Your task to perform on an android device: open app "Microsoft Excel" (install if not already installed) and enter user name: "kidnappers@icloud.com" and password: "Bessemerizes" Image 0: 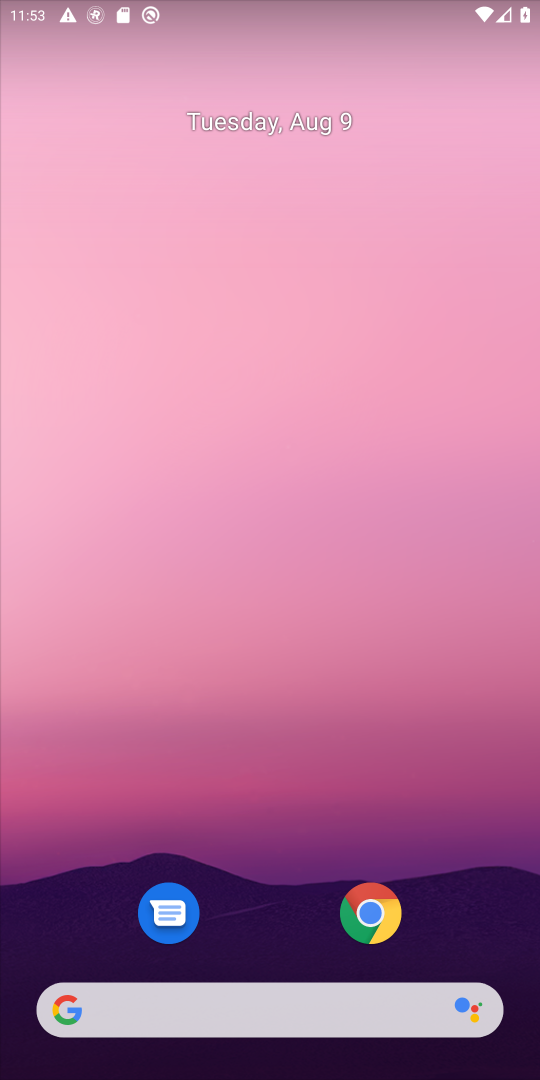
Step 0: drag from (291, 800) to (394, 108)
Your task to perform on an android device: open app "Microsoft Excel" (install if not already installed) and enter user name: "kidnappers@icloud.com" and password: "Bessemerizes" Image 1: 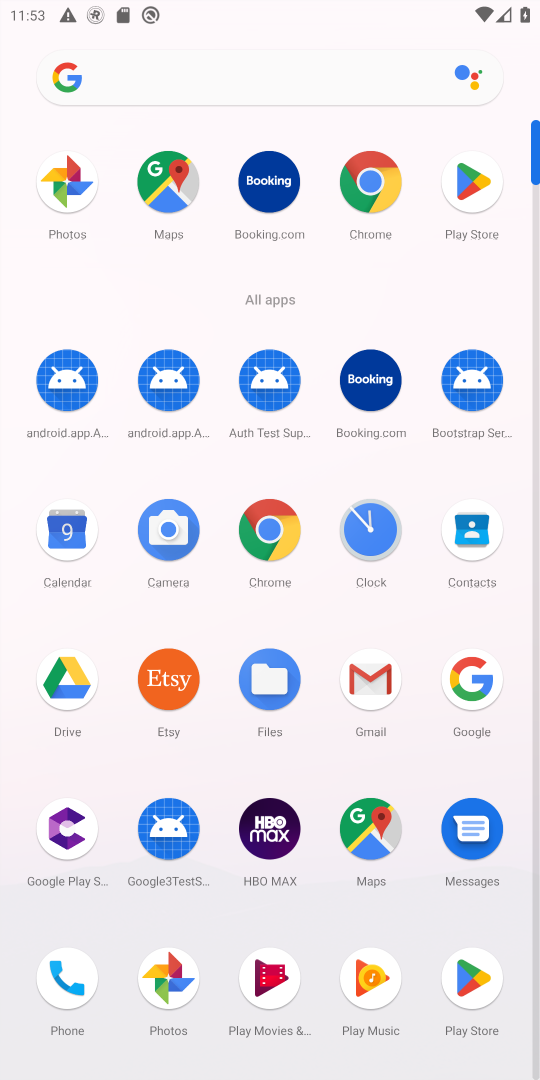
Step 1: click (483, 171)
Your task to perform on an android device: open app "Microsoft Excel" (install if not already installed) and enter user name: "kidnappers@icloud.com" and password: "Bessemerizes" Image 2: 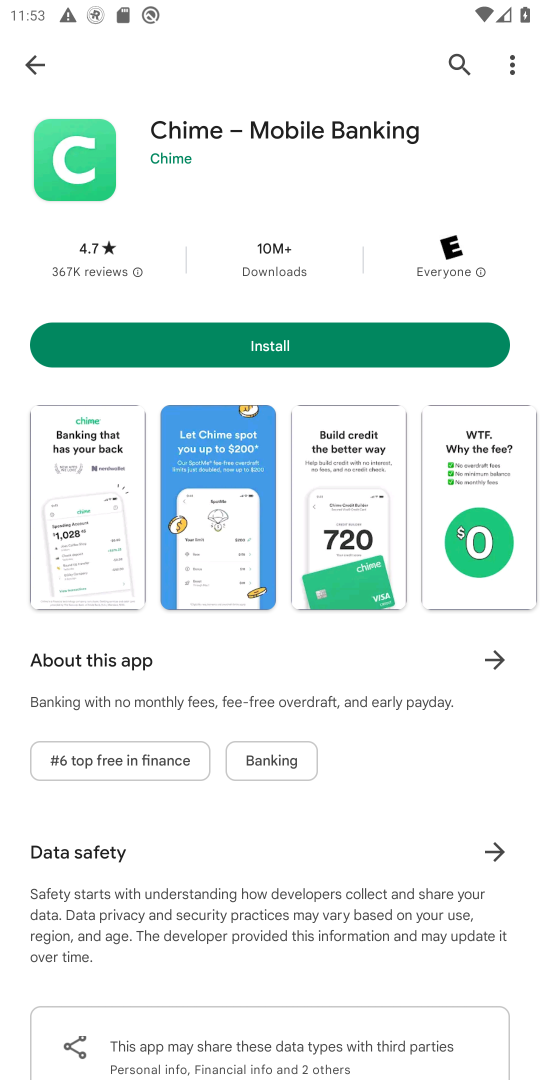
Step 2: click (48, 61)
Your task to perform on an android device: open app "Microsoft Excel" (install if not already installed) and enter user name: "kidnappers@icloud.com" and password: "Bessemerizes" Image 3: 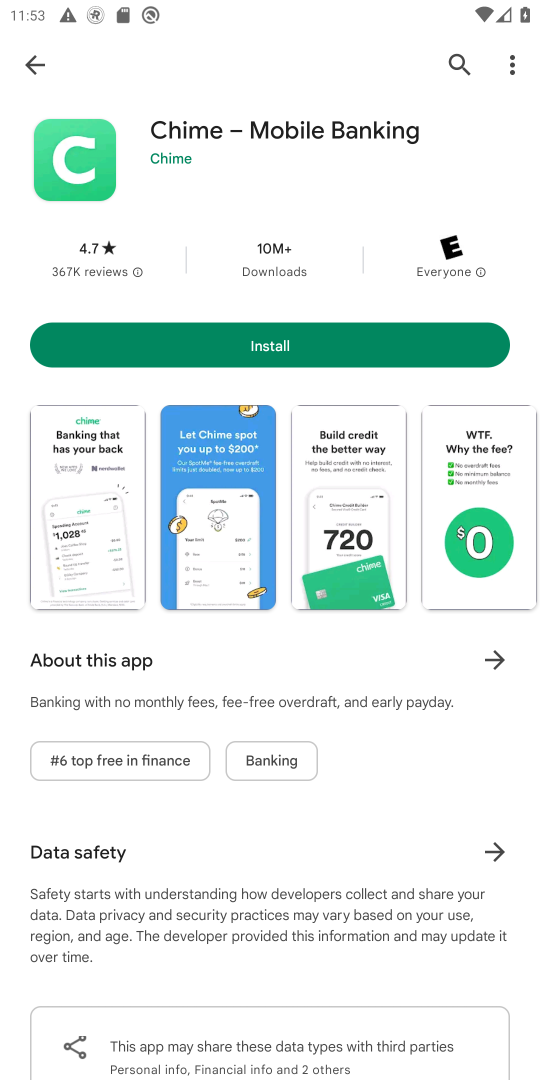
Step 3: click (43, 61)
Your task to perform on an android device: open app "Microsoft Excel" (install if not already installed) and enter user name: "kidnappers@icloud.com" and password: "Bessemerizes" Image 4: 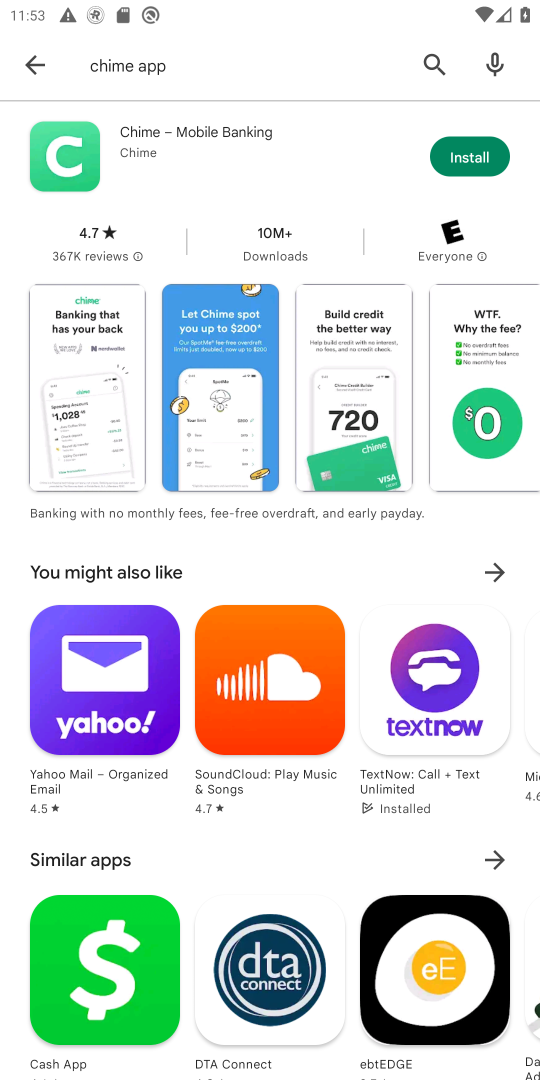
Step 4: click (43, 61)
Your task to perform on an android device: open app "Microsoft Excel" (install if not already installed) and enter user name: "kidnappers@icloud.com" and password: "Bessemerizes" Image 5: 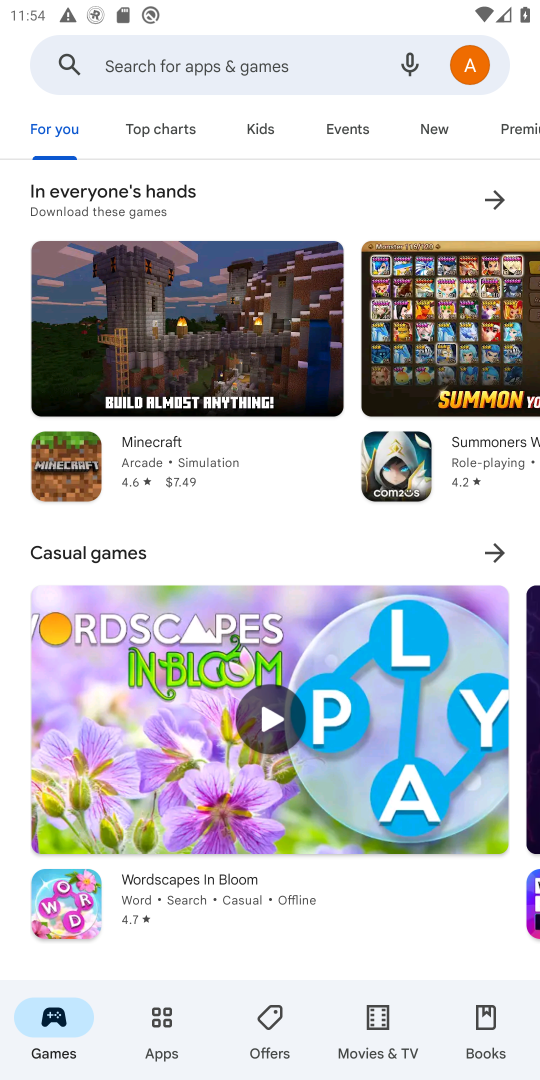
Step 5: click (290, 57)
Your task to perform on an android device: open app "Microsoft Excel" (install if not already installed) and enter user name: "kidnappers@icloud.com" and password: "Bessemerizes" Image 6: 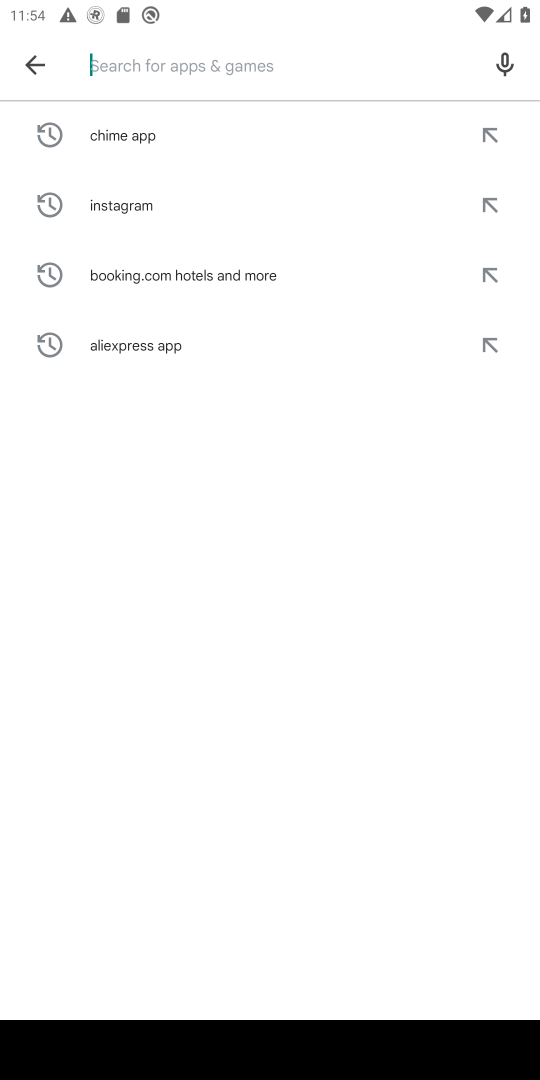
Step 6: type "Microsoft Excel "
Your task to perform on an android device: open app "Microsoft Excel" (install if not already installed) and enter user name: "kidnappers@icloud.com" and password: "Bessemerizes" Image 7: 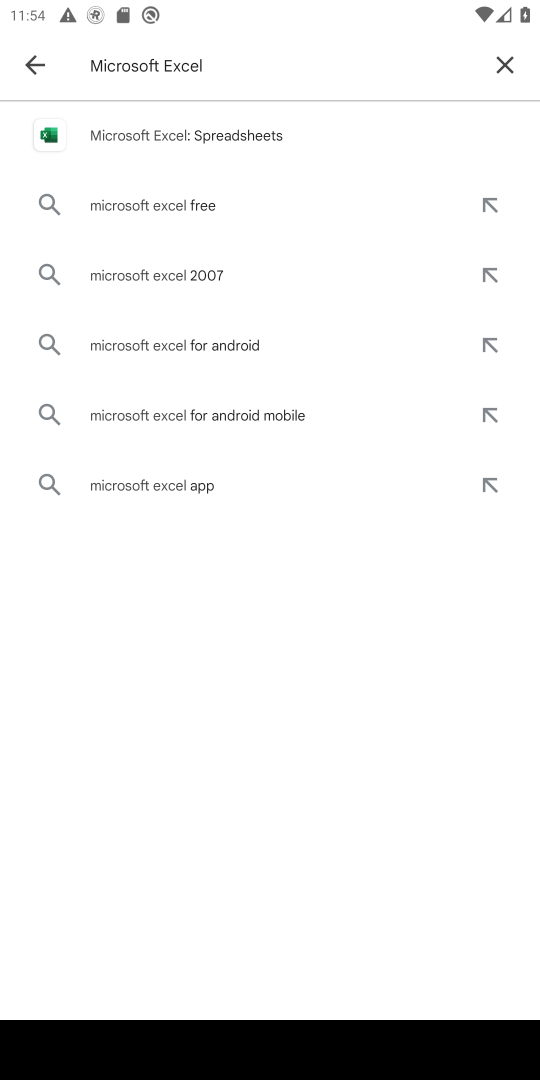
Step 7: click (248, 125)
Your task to perform on an android device: open app "Microsoft Excel" (install if not already installed) and enter user name: "kidnappers@icloud.com" and password: "Bessemerizes" Image 8: 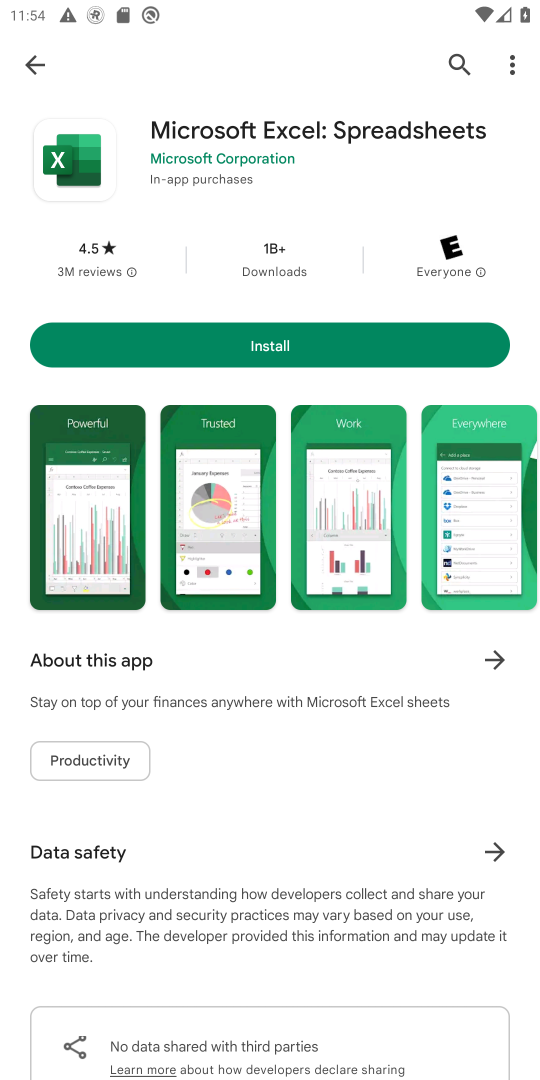
Step 8: click (282, 343)
Your task to perform on an android device: open app "Microsoft Excel" (install if not already installed) and enter user name: "kidnappers@icloud.com" and password: "Bessemerizes" Image 9: 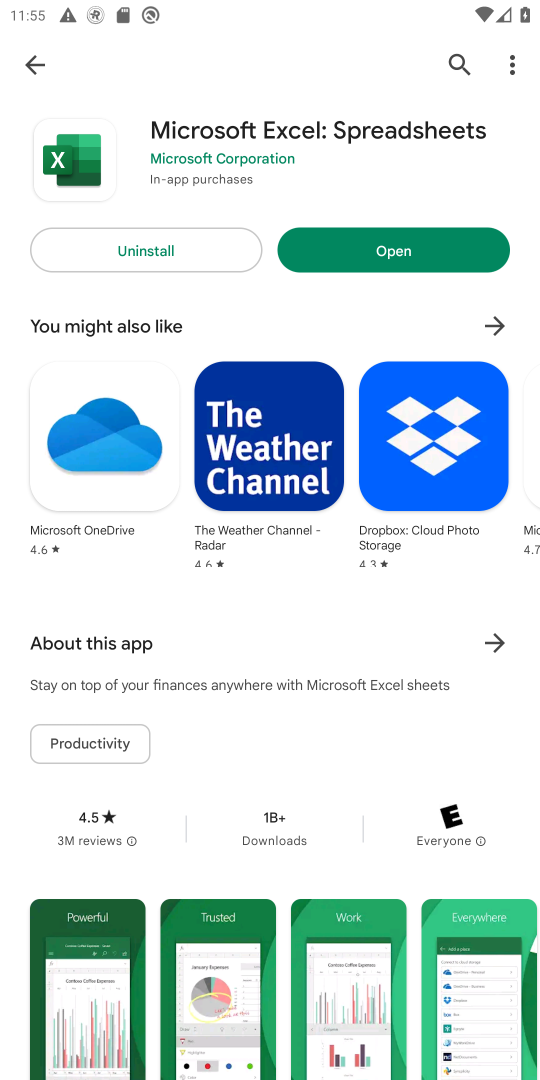
Step 9: click (330, 221)
Your task to perform on an android device: open app "Microsoft Excel" (install if not already installed) and enter user name: "kidnappers@icloud.com" and password: "Bessemerizes" Image 10: 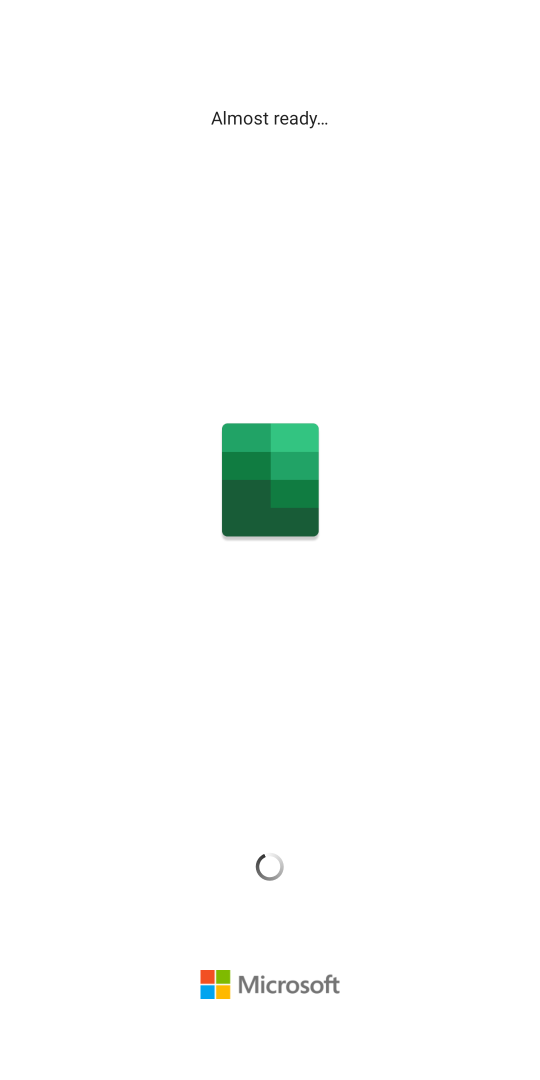
Step 10: task complete